Your task to perform on an android device: toggle sleep mode Image 0: 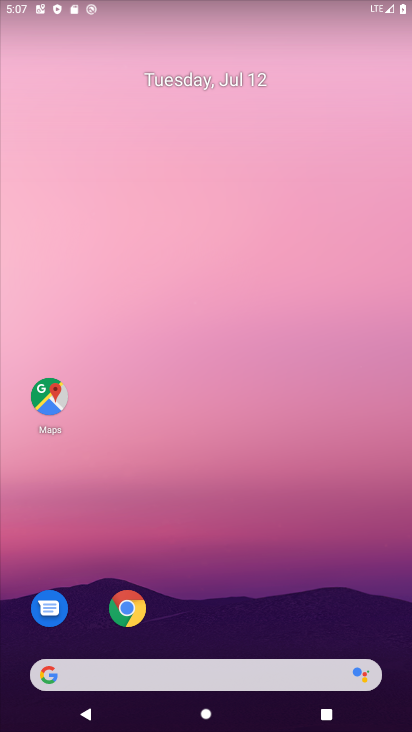
Step 0: drag from (216, 9) to (270, 686)
Your task to perform on an android device: toggle sleep mode Image 1: 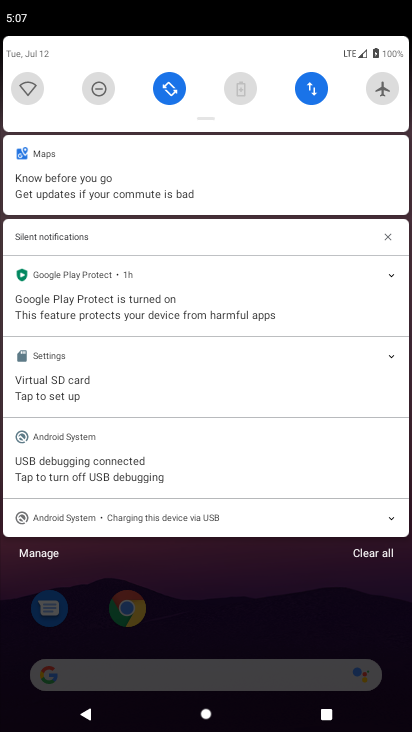
Step 1: drag from (214, 66) to (199, 617)
Your task to perform on an android device: toggle sleep mode Image 2: 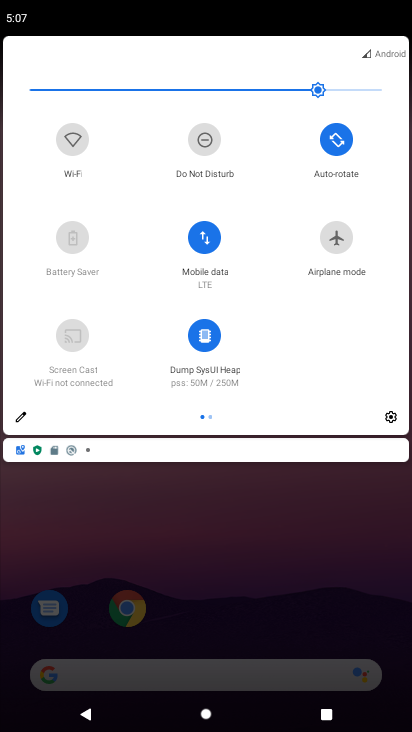
Step 2: click (395, 413)
Your task to perform on an android device: toggle sleep mode Image 3: 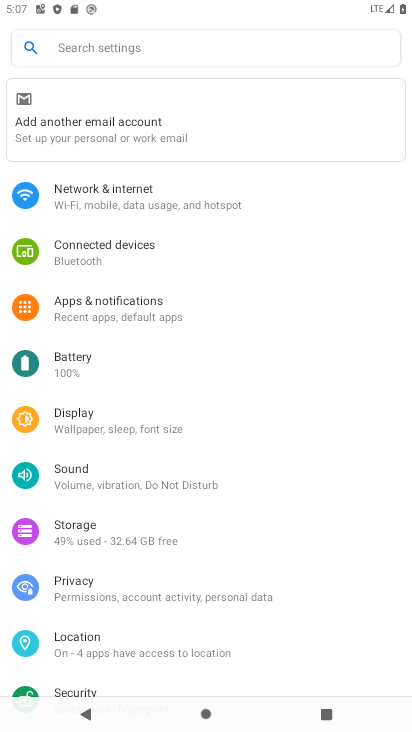
Step 3: task complete